Your task to perform on an android device: Open Youtube and go to the subscriptions tab Image 0: 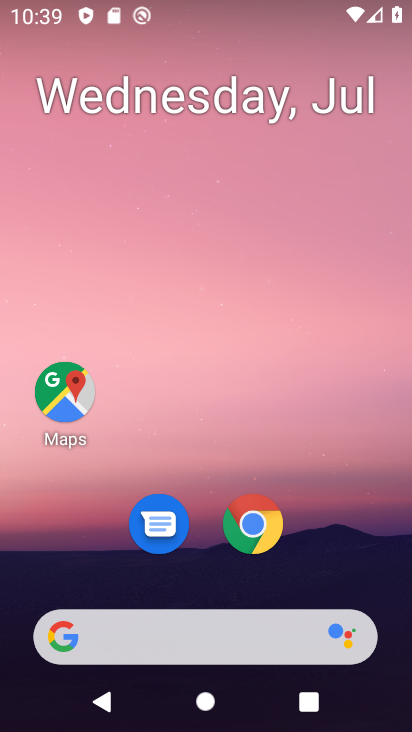
Step 0: drag from (166, 593) to (207, 228)
Your task to perform on an android device: Open Youtube and go to the subscriptions tab Image 1: 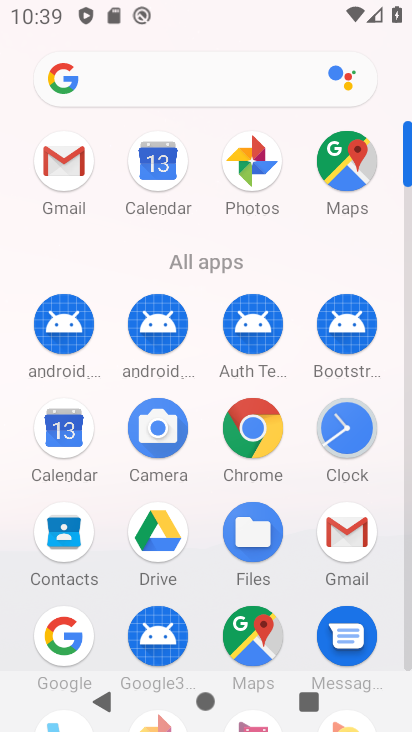
Step 1: drag from (197, 627) to (306, 106)
Your task to perform on an android device: Open Youtube and go to the subscriptions tab Image 2: 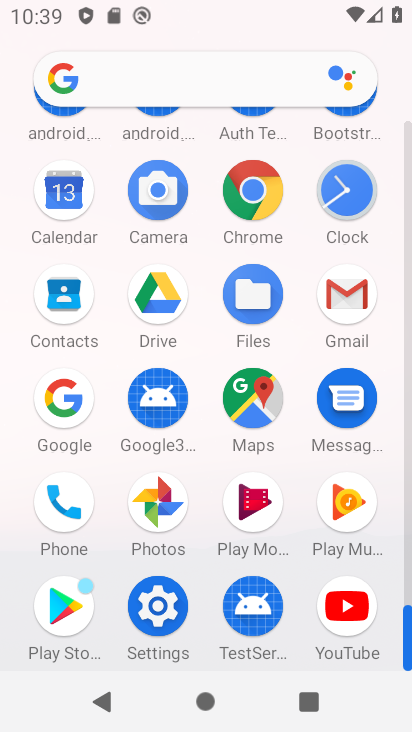
Step 2: click (340, 604)
Your task to perform on an android device: Open Youtube and go to the subscriptions tab Image 3: 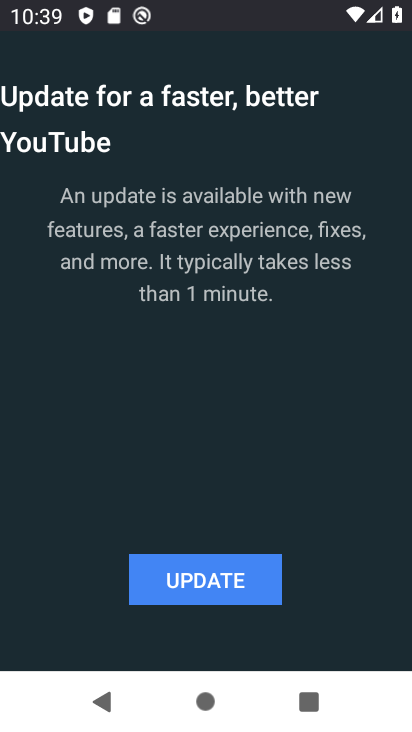
Step 3: click (245, 572)
Your task to perform on an android device: Open Youtube and go to the subscriptions tab Image 4: 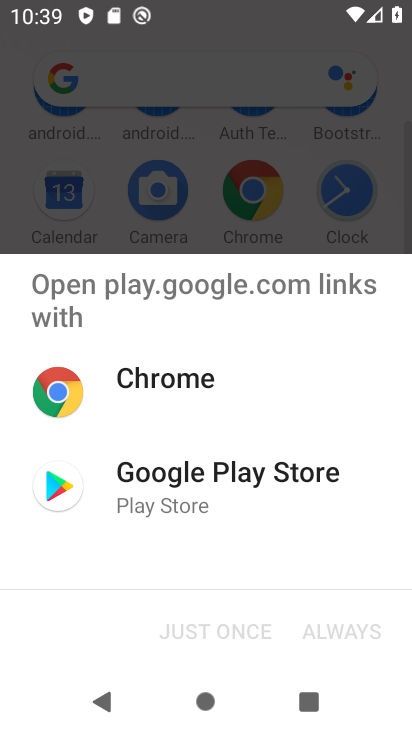
Step 4: click (180, 492)
Your task to perform on an android device: Open Youtube and go to the subscriptions tab Image 5: 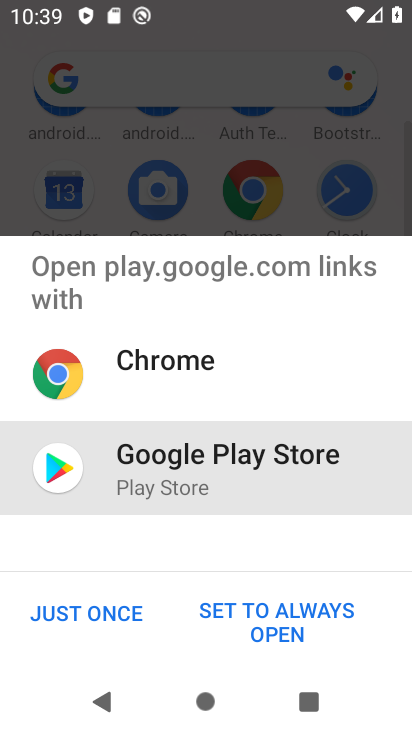
Step 5: click (118, 612)
Your task to perform on an android device: Open Youtube and go to the subscriptions tab Image 6: 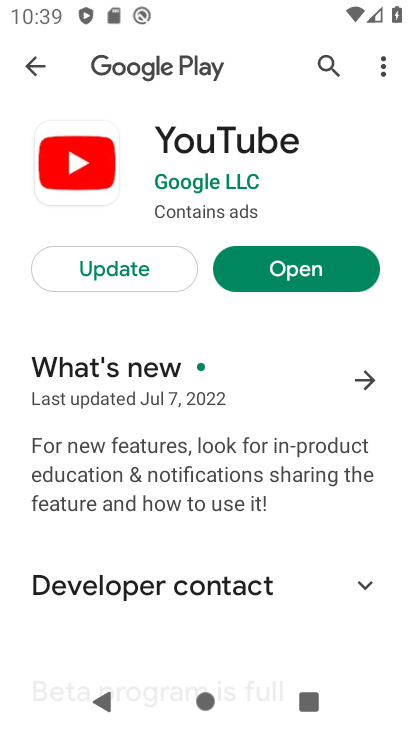
Step 6: click (105, 277)
Your task to perform on an android device: Open Youtube and go to the subscriptions tab Image 7: 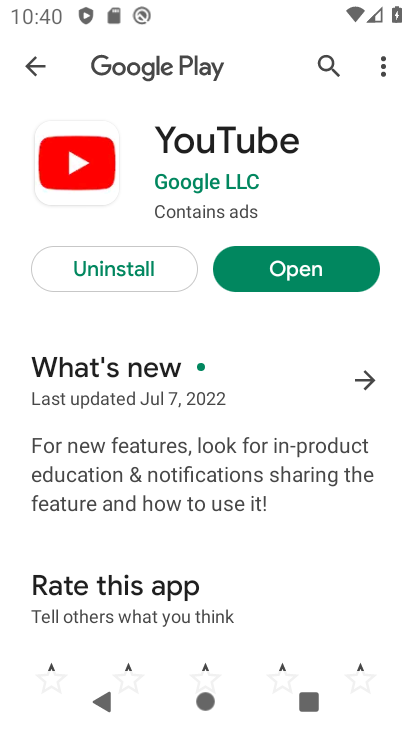
Step 7: click (333, 271)
Your task to perform on an android device: Open Youtube and go to the subscriptions tab Image 8: 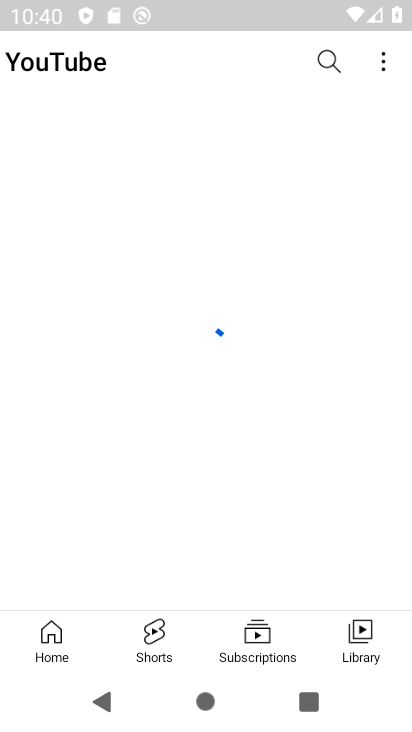
Step 8: click (257, 646)
Your task to perform on an android device: Open Youtube and go to the subscriptions tab Image 9: 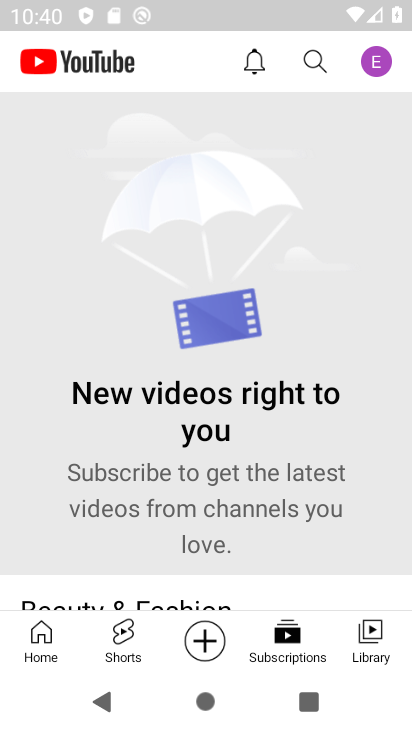
Step 9: task complete